Your task to perform on an android device: check storage Image 0: 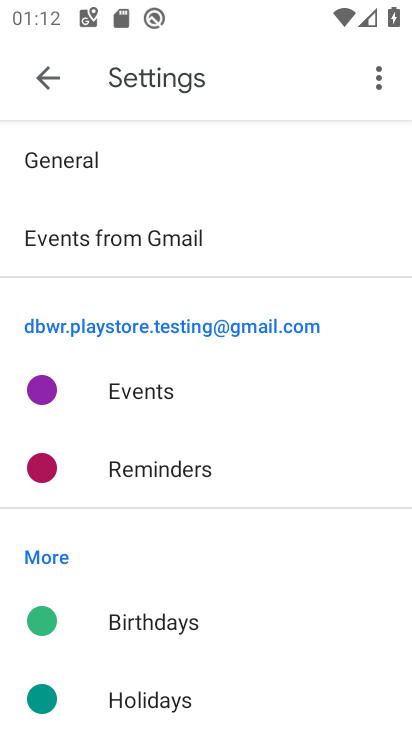
Step 0: press home button
Your task to perform on an android device: check storage Image 1: 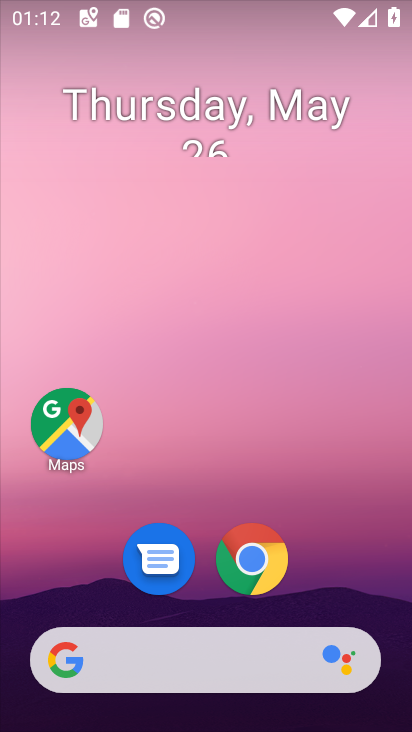
Step 1: drag from (343, 547) to (375, 224)
Your task to perform on an android device: check storage Image 2: 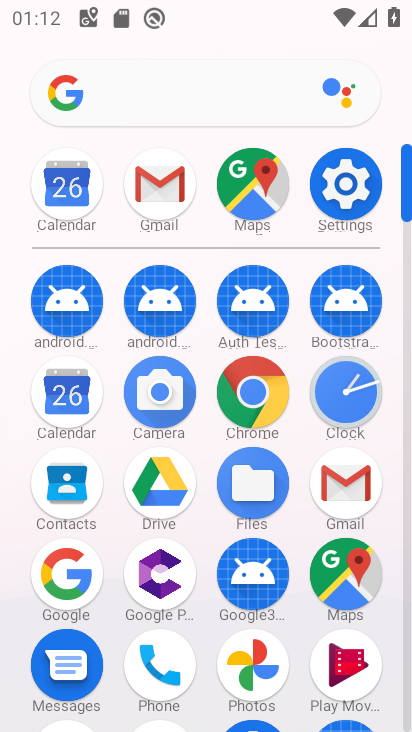
Step 2: click (346, 182)
Your task to perform on an android device: check storage Image 3: 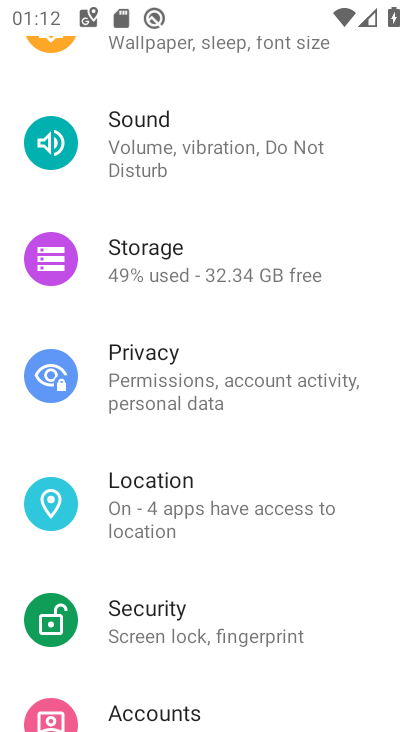
Step 3: click (223, 267)
Your task to perform on an android device: check storage Image 4: 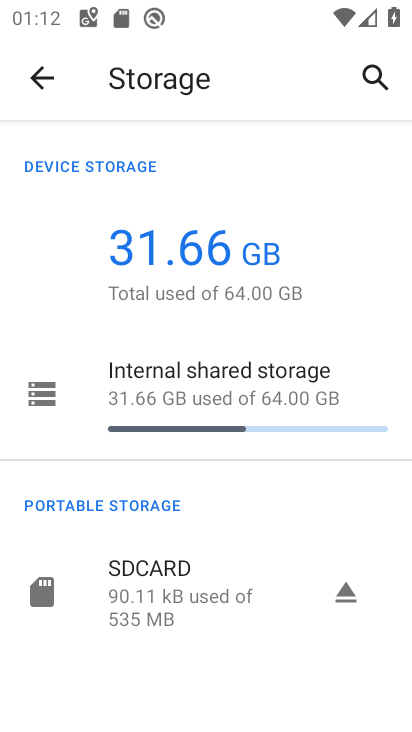
Step 4: task complete